Your task to perform on an android device: Turn on the flashlight Image 0: 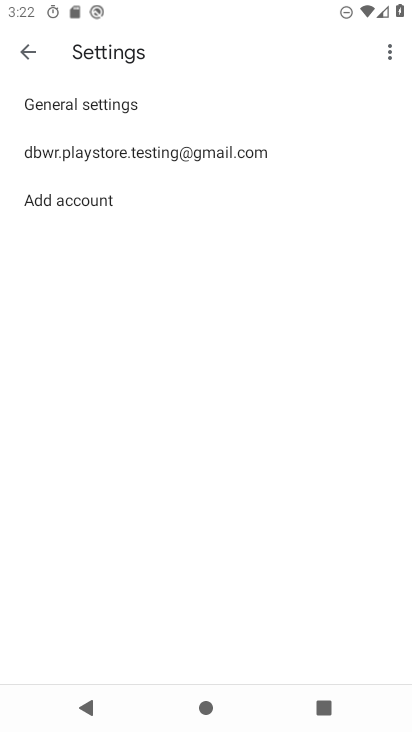
Step 0: press home button
Your task to perform on an android device: Turn on the flashlight Image 1: 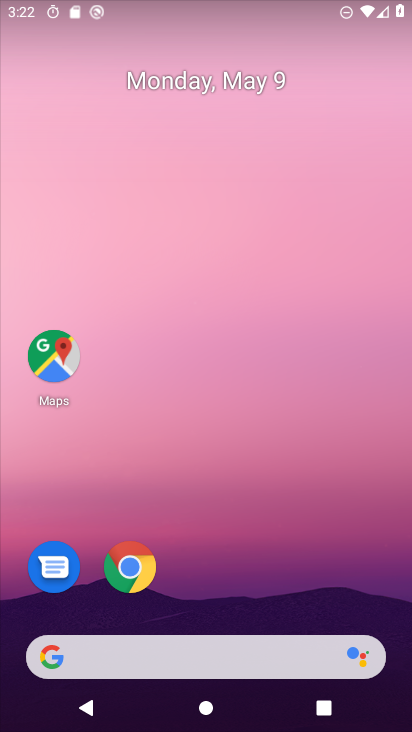
Step 1: drag from (302, 576) to (248, 219)
Your task to perform on an android device: Turn on the flashlight Image 2: 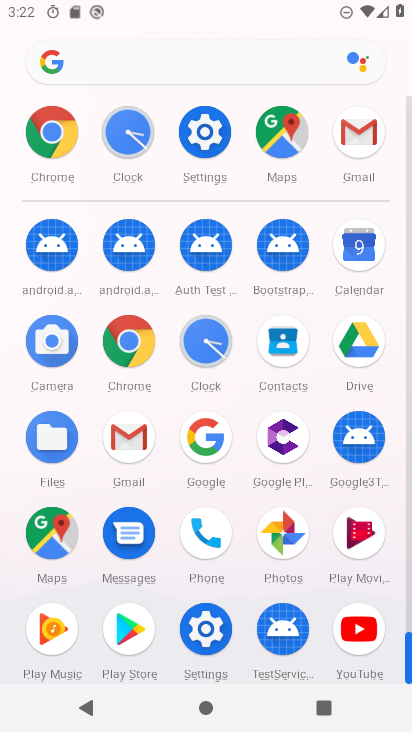
Step 2: click (215, 138)
Your task to perform on an android device: Turn on the flashlight Image 3: 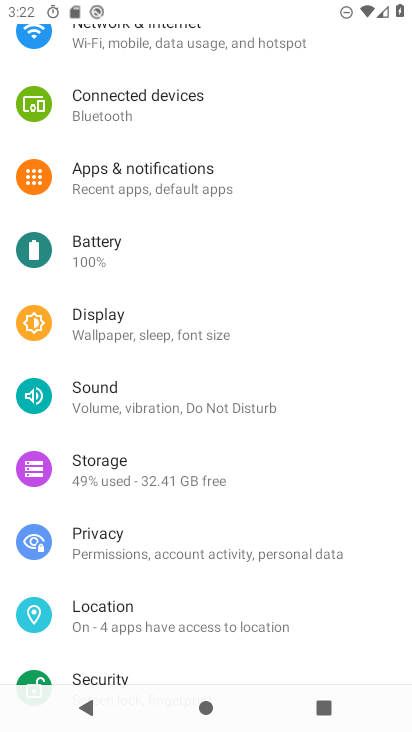
Step 3: click (118, 164)
Your task to perform on an android device: Turn on the flashlight Image 4: 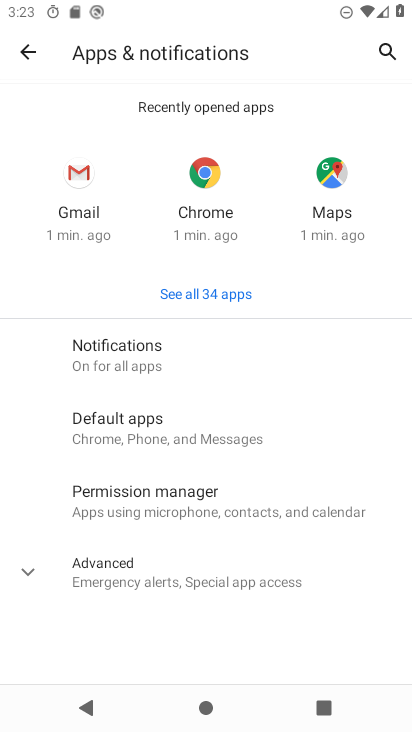
Step 4: click (226, 585)
Your task to perform on an android device: Turn on the flashlight Image 5: 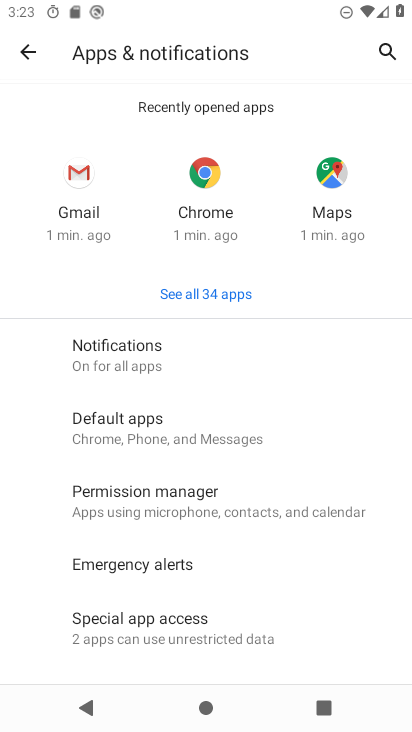
Step 5: task complete